Your task to perform on an android device: Open Youtube and go to the subscriptions tab Image 0: 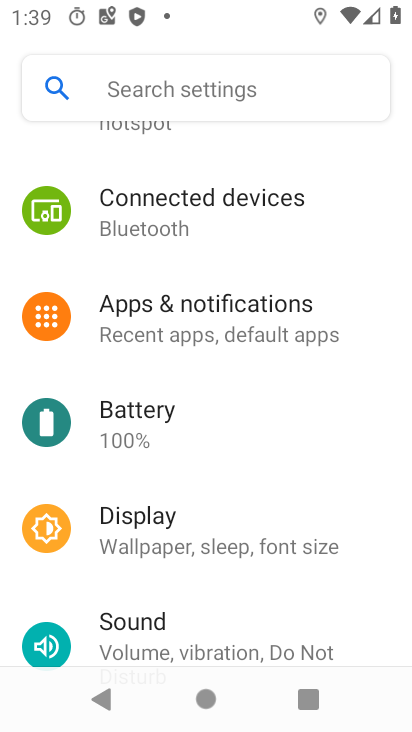
Step 0: press home button
Your task to perform on an android device: Open Youtube and go to the subscriptions tab Image 1: 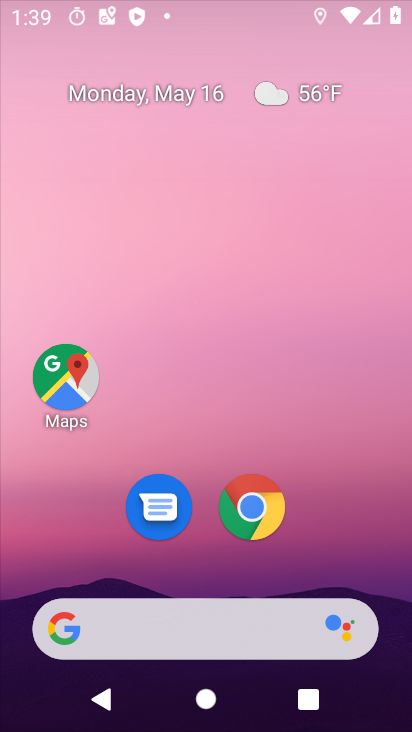
Step 1: drag from (281, 583) to (276, 30)
Your task to perform on an android device: Open Youtube and go to the subscriptions tab Image 2: 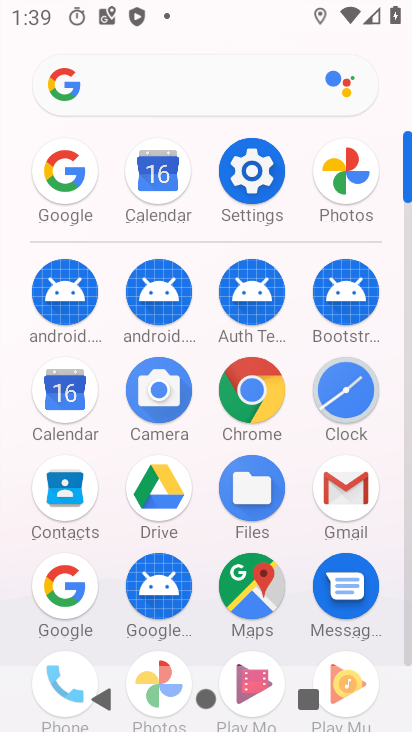
Step 2: drag from (303, 497) to (287, 42)
Your task to perform on an android device: Open Youtube and go to the subscriptions tab Image 3: 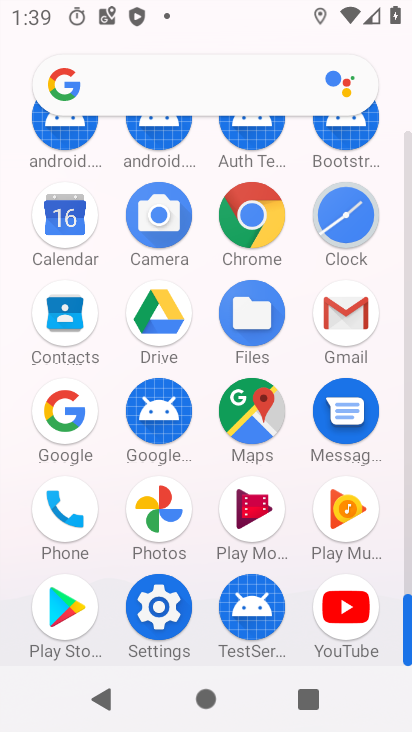
Step 3: click (341, 606)
Your task to perform on an android device: Open Youtube and go to the subscriptions tab Image 4: 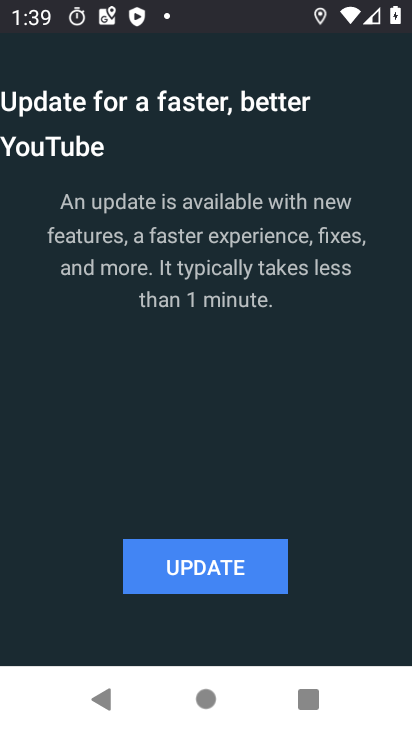
Step 4: click (220, 567)
Your task to perform on an android device: Open Youtube and go to the subscriptions tab Image 5: 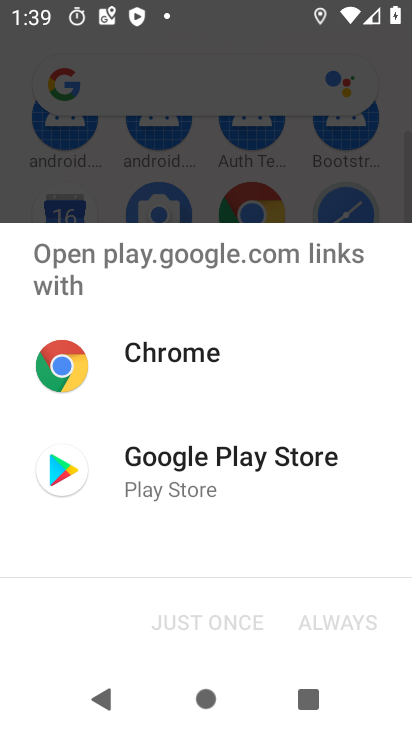
Step 5: click (180, 450)
Your task to perform on an android device: Open Youtube and go to the subscriptions tab Image 6: 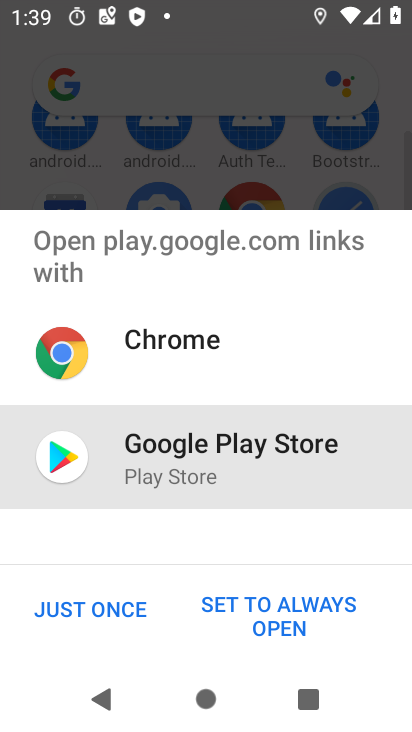
Step 6: click (103, 595)
Your task to perform on an android device: Open Youtube and go to the subscriptions tab Image 7: 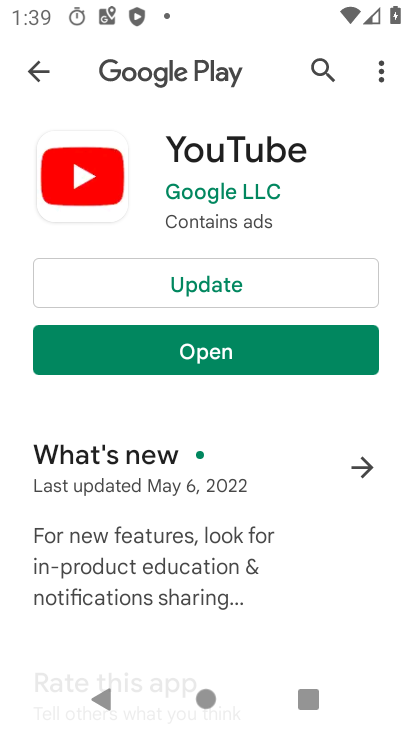
Step 7: click (213, 285)
Your task to perform on an android device: Open Youtube and go to the subscriptions tab Image 8: 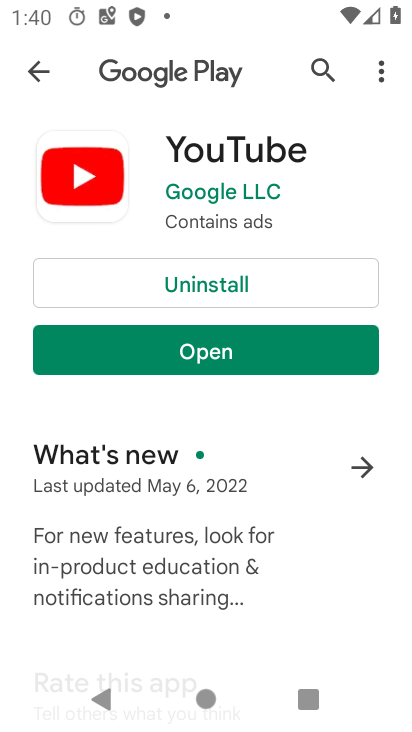
Step 8: click (208, 350)
Your task to perform on an android device: Open Youtube and go to the subscriptions tab Image 9: 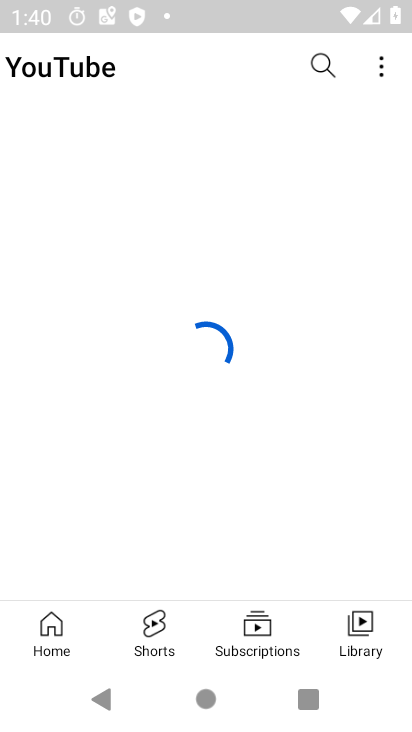
Step 9: click (258, 630)
Your task to perform on an android device: Open Youtube and go to the subscriptions tab Image 10: 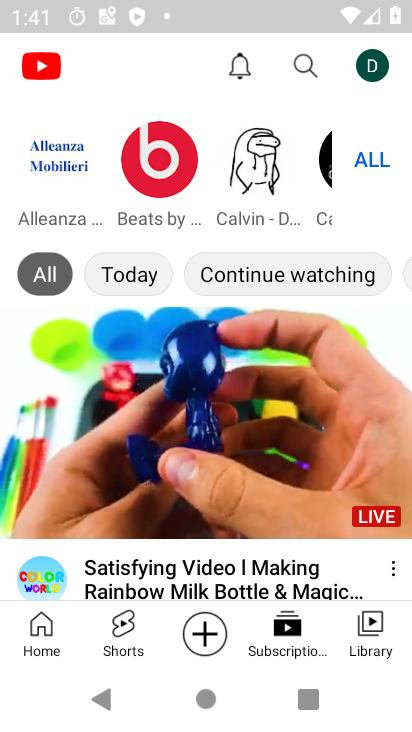
Step 10: task complete